Your task to perform on an android device: turn off location history Image 0: 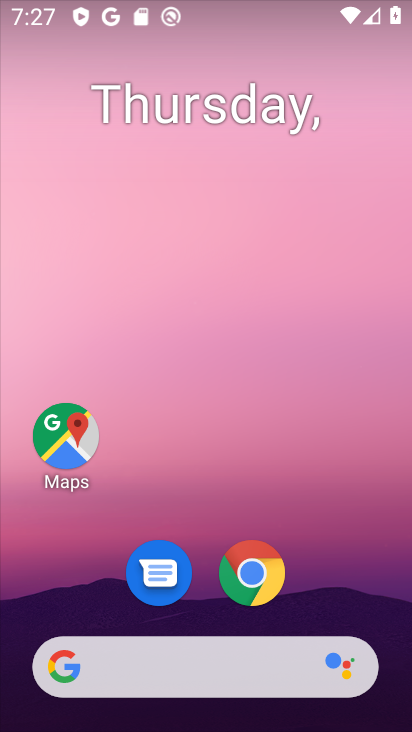
Step 0: drag from (351, 591) to (344, 141)
Your task to perform on an android device: turn off location history Image 1: 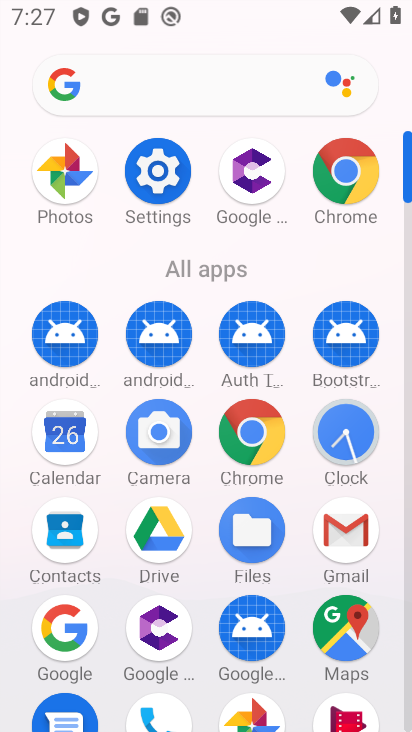
Step 1: click (145, 196)
Your task to perform on an android device: turn off location history Image 2: 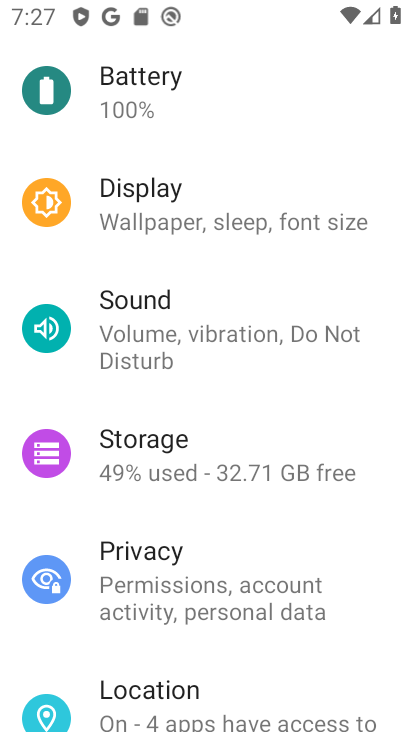
Step 2: click (223, 699)
Your task to perform on an android device: turn off location history Image 3: 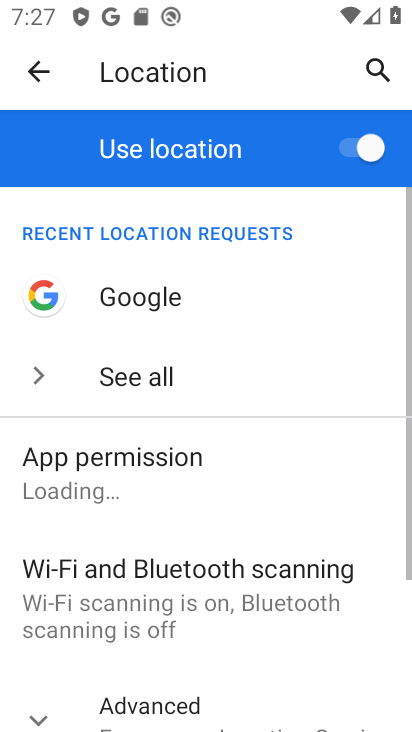
Step 3: drag from (226, 683) to (228, 320)
Your task to perform on an android device: turn off location history Image 4: 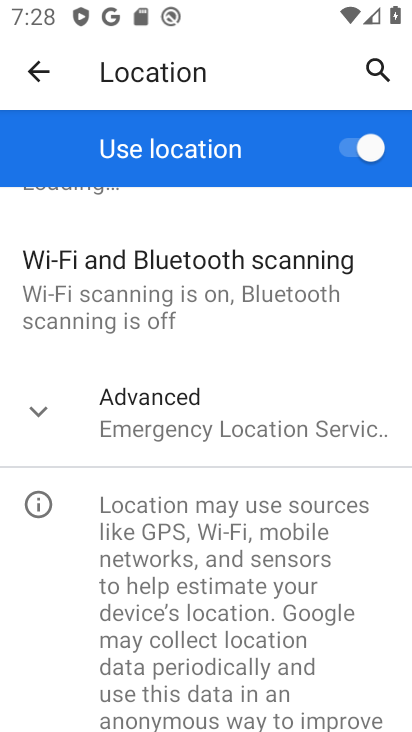
Step 4: click (203, 449)
Your task to perform on an android device: turn off location history Image 5: 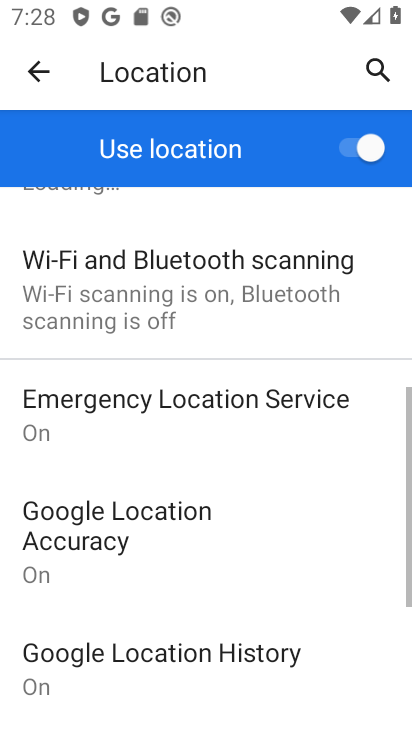
Step 5: drag from (208, 650) to (233, 383)
Your task to perform on an android device: turn off location history Image 6: 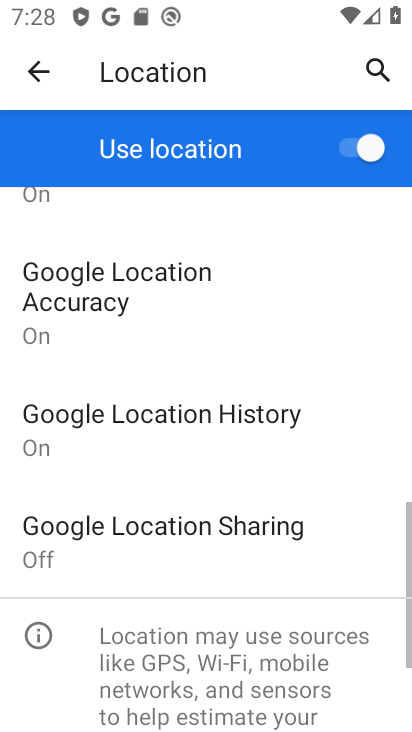
Step 6: click (197, 412)
Your task to perform on an android device: turn off location history Image 7: 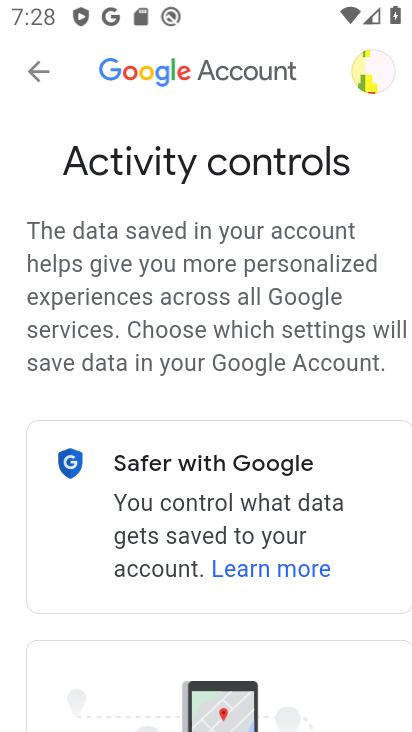
Step 7: drag from (256, 620) to (247, 351)
Your task to perform on an android device: turn off location history Image 8: 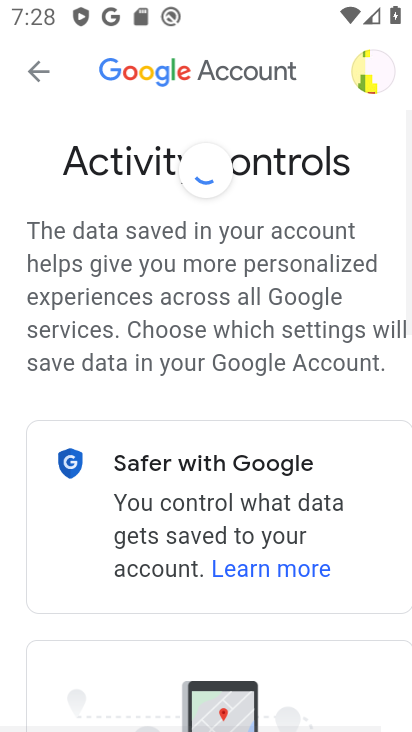
Step 8: drag from (241, 667) to (239, 355)
Your task to perform on an android device: turn off location history Image 9: 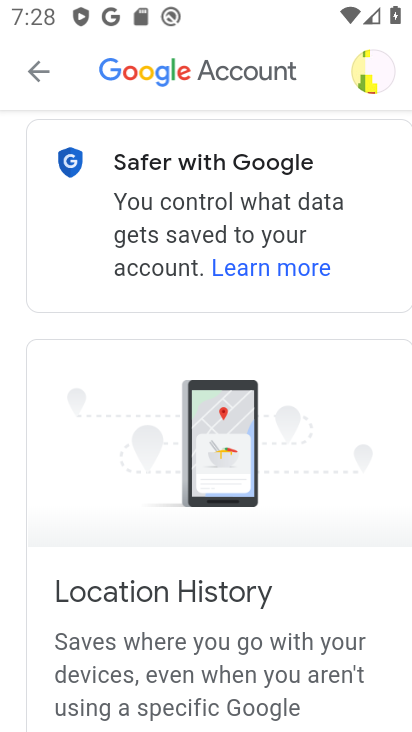
Step 9: drag from (242, 666) to (229, 290)
Your task to perform on an android device: turn off location history Image 10: 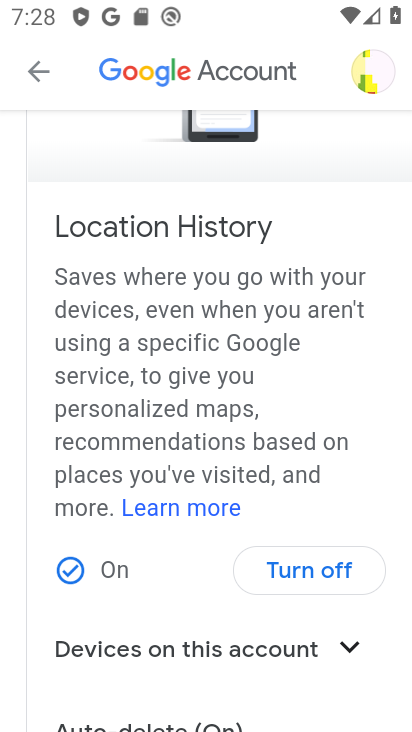
Step 10: click (309, 564)
Your task to perform on an android device: turn off location history Image 11: 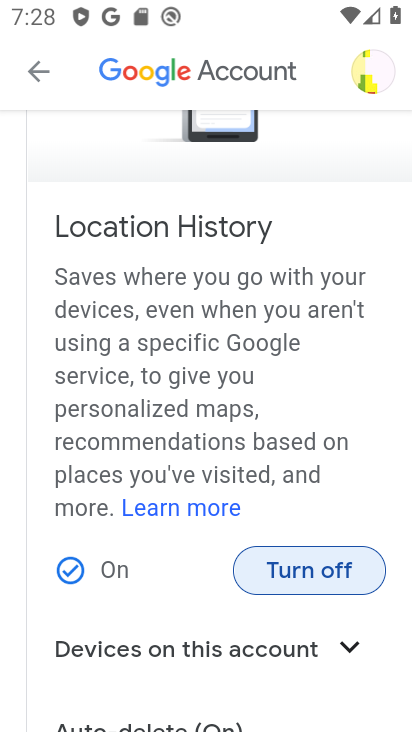
Step 11: click (304, 583)
Your task to perform on an android device: turn off location history Image 12: 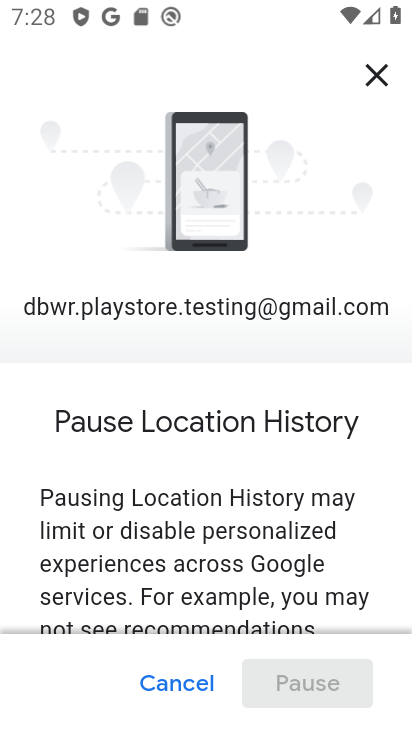
Step 12: drag from (262, 616) to (259, 285)
Your task to perform on an android device: turn off location history Image 13: 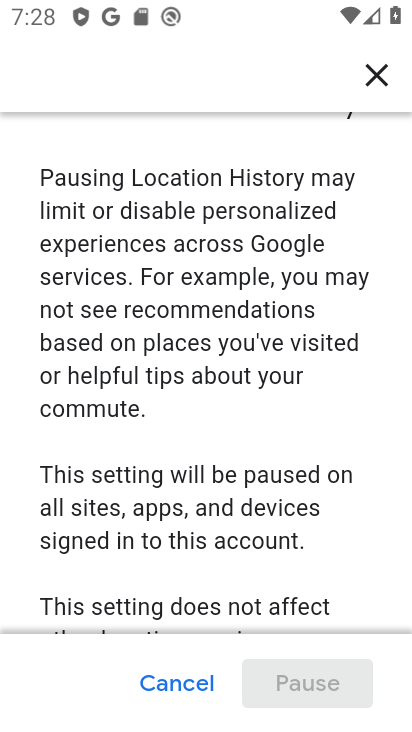
Step 13: drag from (236, 599) to (301, 242)
Your task to perform on an android device: turn off location history Image 14: 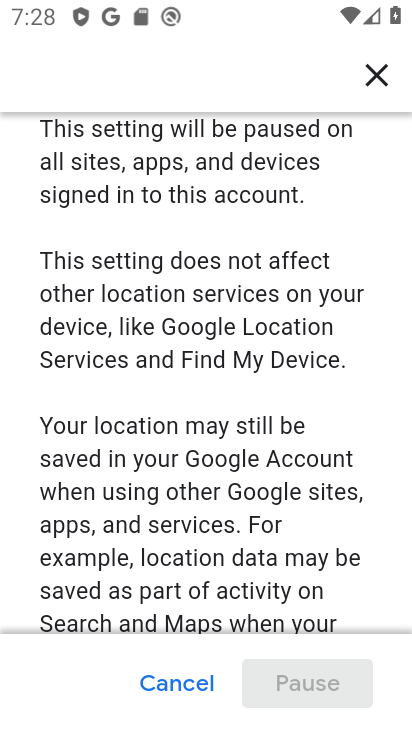
Step 14: drag from (238, 644) to (321, 278)
Your task to perform on an android device: turn off location history Image 15: 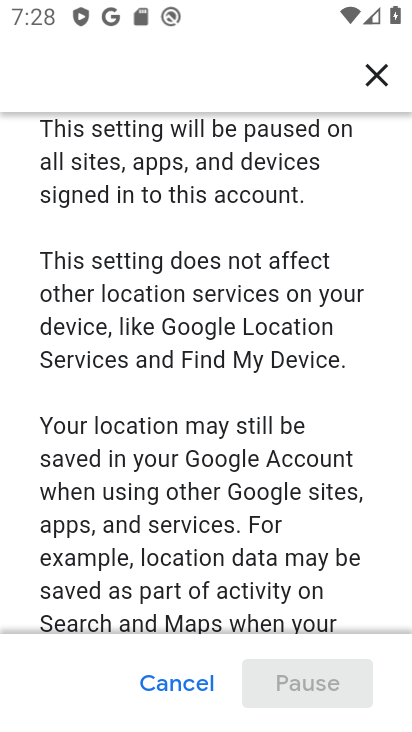
Step 15: drag from (250, 573) to (292, 245)
Your task to perform on an android device: turn off location history Image 16: 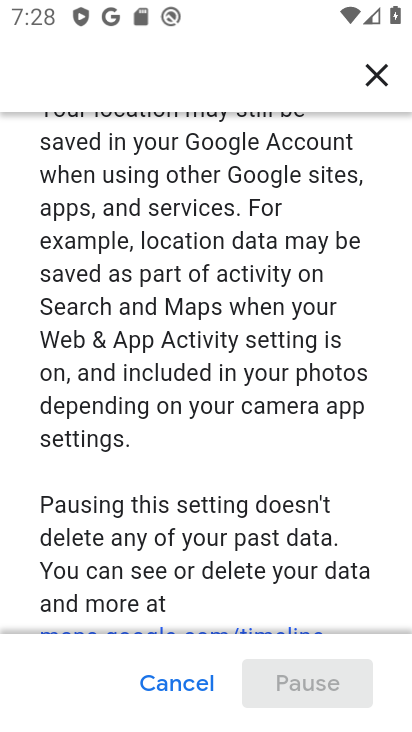
Step 16: drag from (244, 576) to (303, 211)
Your task to perform on an android device: turn off location history Image 17: 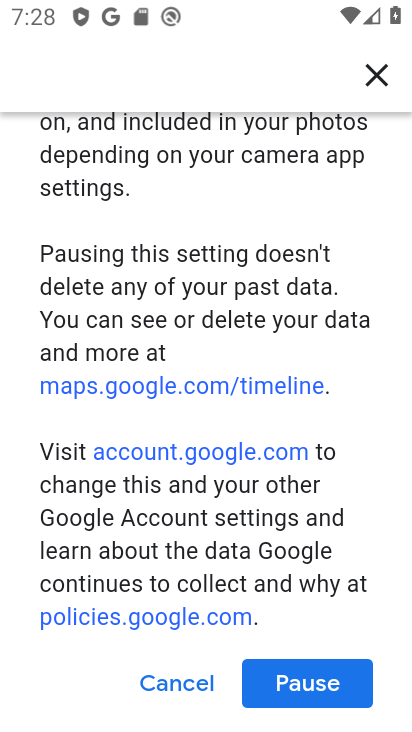
Step 17: click (280, 685)
Your task to perform on an android device: turn off location history Image 18: 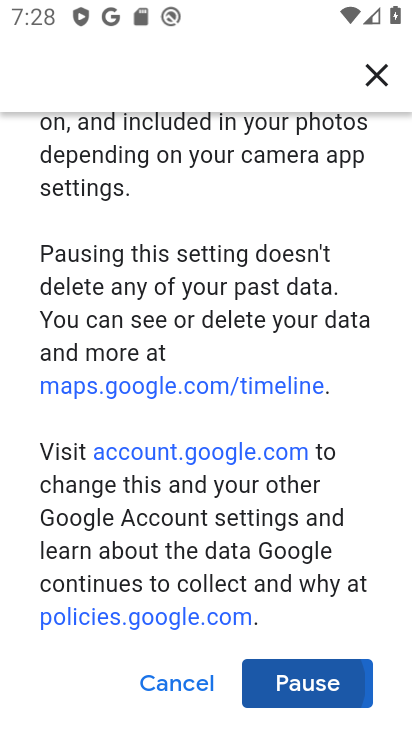
Step 18: click (282, 683)
Your task to perform on an android device: turn off location history Image 19: 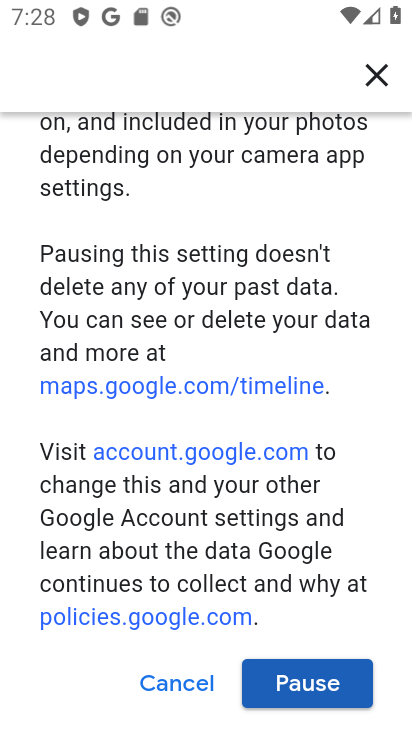
Step 19: click (275, 673)
Your task to perform on an android device: turn off location history Image 20: 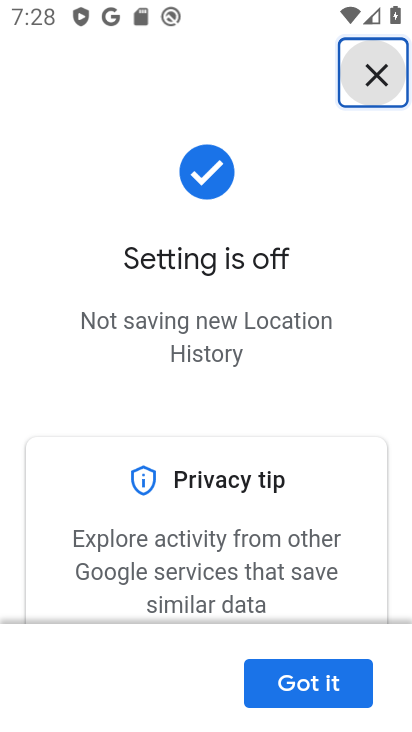
Step 20: click (281, 679)
Your task to perform on an android device: turn off location history Image 21: 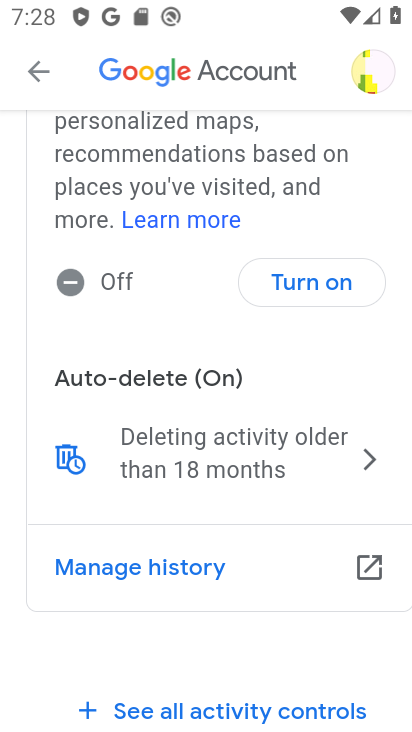
Step 21: task complete